Your task to perform on an android device: Show me the alarms in the clock app Image 0: 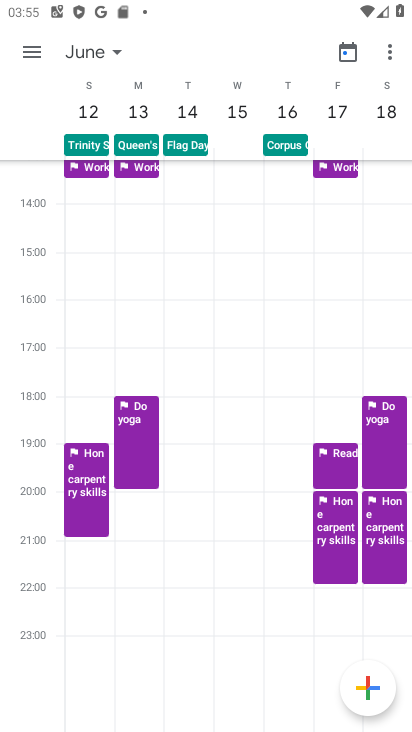
Step 0: press home button
Your task to perform on an android device: Show me the alarms in the clock app Image 1: 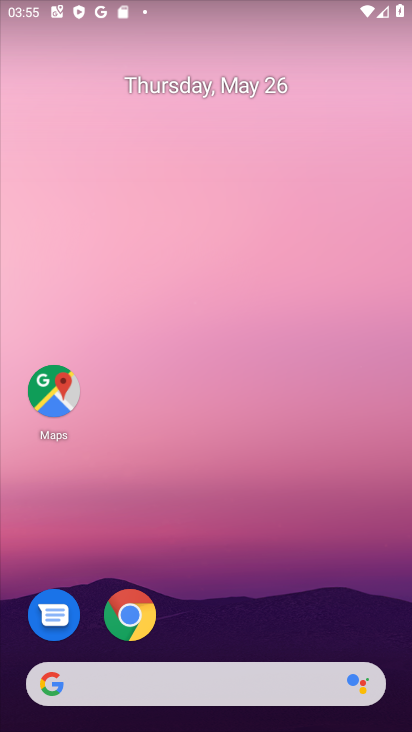
Step 1: drag from (186, 627) to (195, 20)
Your task to perform on an android device: Show me the alarms in the clock app Image 2: 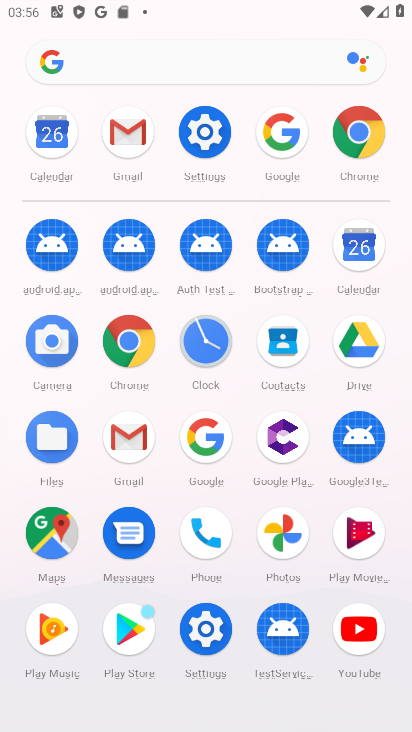
Step 2: click (204, 354)
Your task to perform on an android device: Show me the alarms in the clock app Image 3: 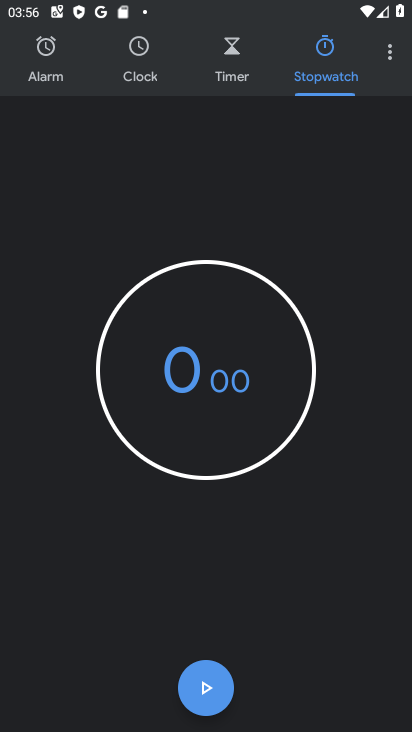
Step 3: click (52, 74)
Your task to perform on an android device: Show me the alarms in the clock app Image 4: 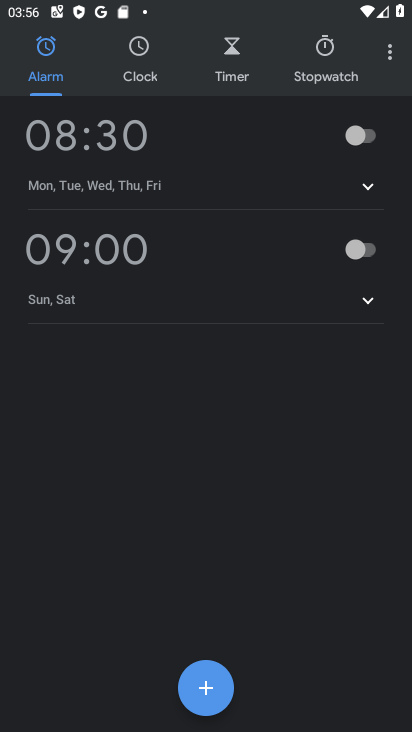
Step 4: task complete